Your task to perform on an android device: toggle translation in the chrome app Image 0: 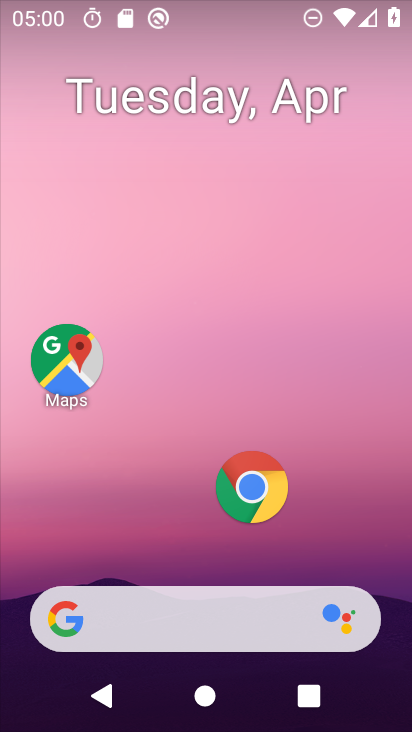
Step 0: click (243, 510)
Your task to perform on an android device: toggle translation in the chrome app Image 1: 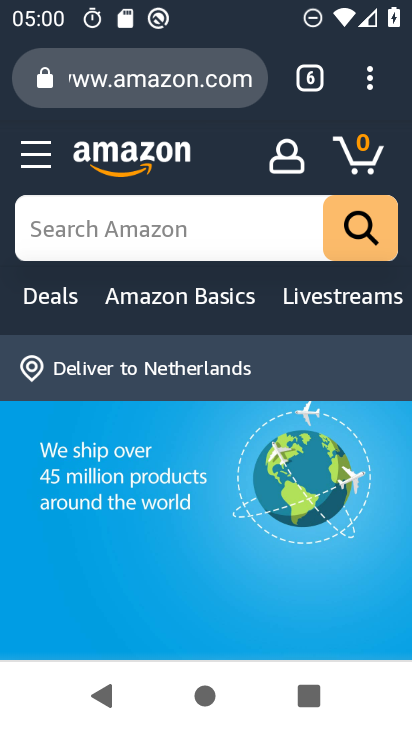
Step 1: drag from (370, 80) to (125, 558)
Your task to perform on an android device: toggle translation in the chrome app Image 2: 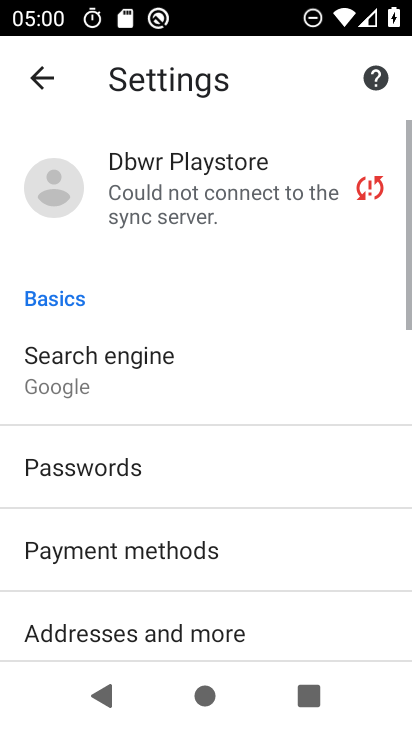
Step 2: drag from (128, 602) to (293, 76)
Your task to perform on an android device: toggle translation in the chrome app Image 3: 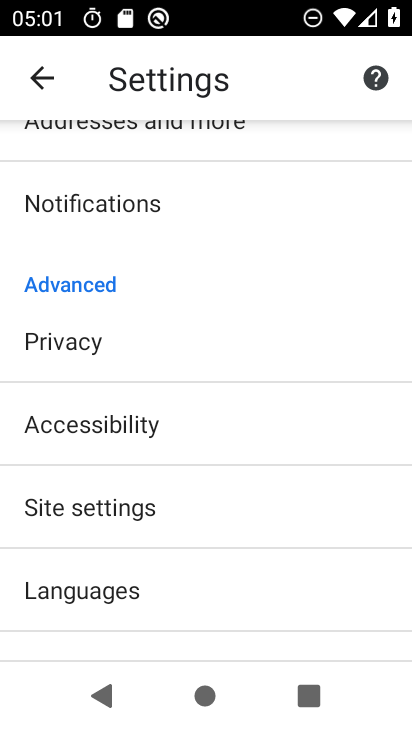
Step 3: click (100, 588)
Your task to perform on an android device: toggle translation in the chrome app Image 4: 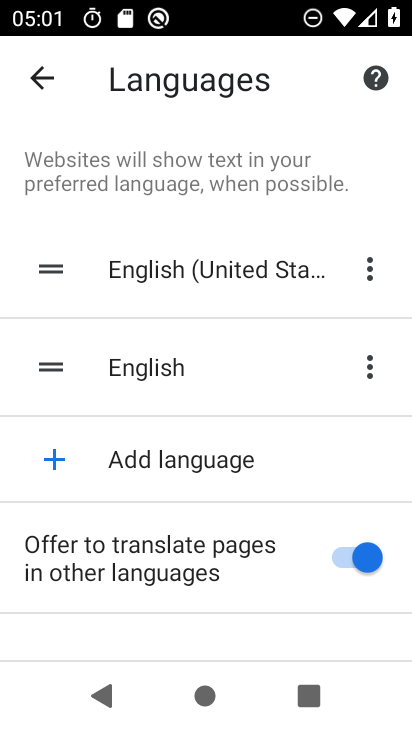
Step 4: click (370, 563)
Your task to perform on an android device: toggle translation in the chrome app Image 5: 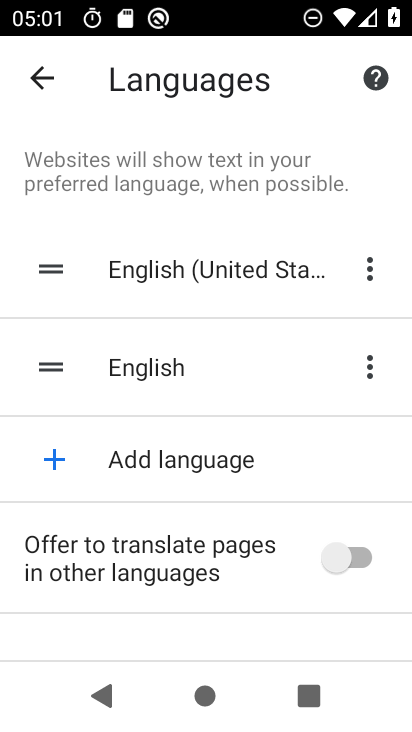
Step 5: task complete